Your task to perform on an android device: toggle pop-ups in chrome Image 0: 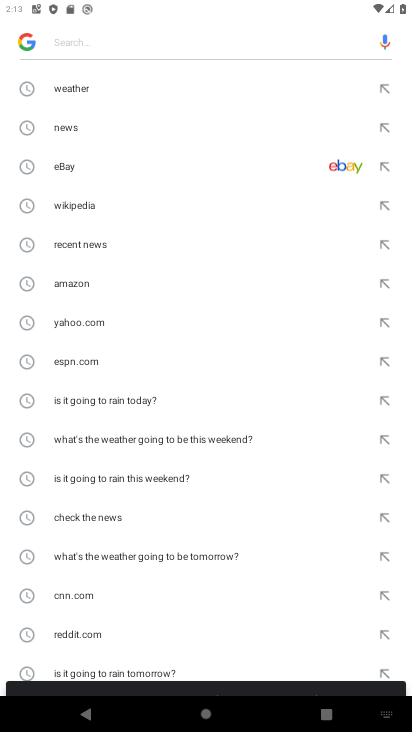
Step 0: press home button
Your task to perform on an android device: toggle pop-ups in chrome Image 1: 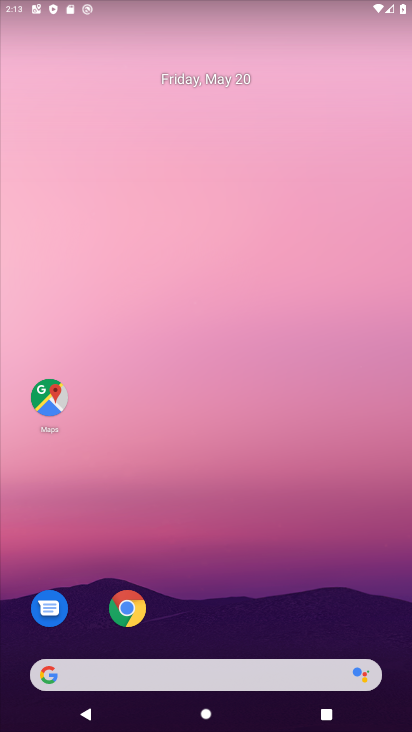
Step 1: click (115, 606)
Your task to perform on an android device: toggle pop-ups in chrome Image 2: 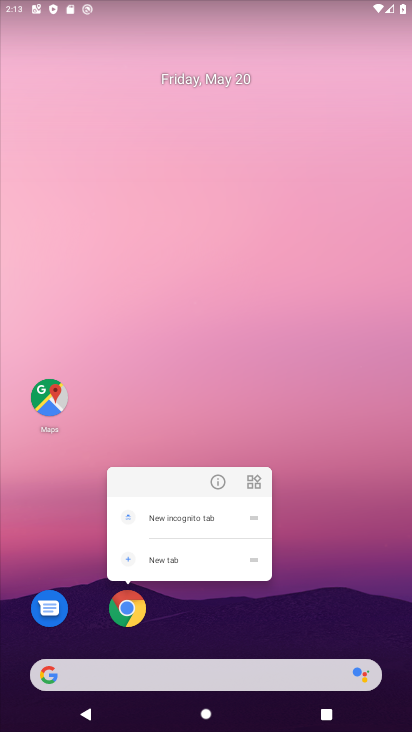
Step 2: click (126, 609)
Your task to perform on an android device: toggle pop-ups in chrome Image 3: 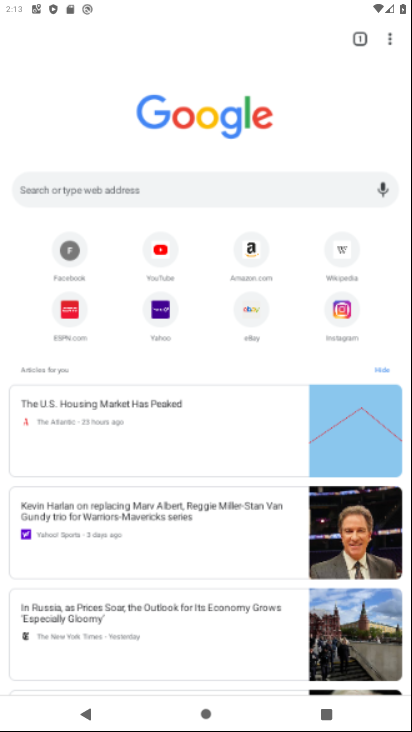
Step 3: click (119, 611)
Your task to perform on an android device: toggle pop-ups in chrome Image 4: 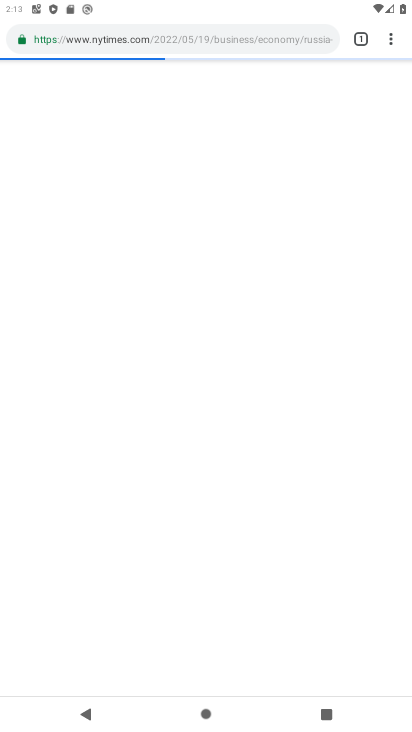
Step 4: press back button
Your task to perform on an android device: toggle pop-ups in chrome Image 5: 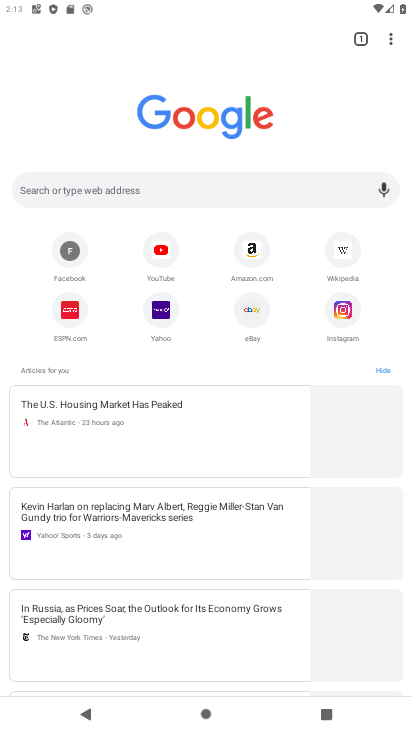
Step 5: drag from (390, 40) to (250, 321)
Your task to perform on an android device: toggle pop-ups in chrome Image 6: 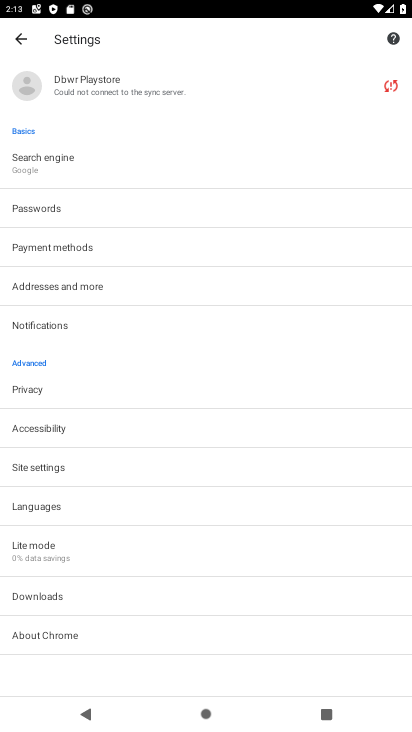
Step 6: click (44, 457)
Your task to perform on an android device: toggle pop-ups in chrome Image 7: 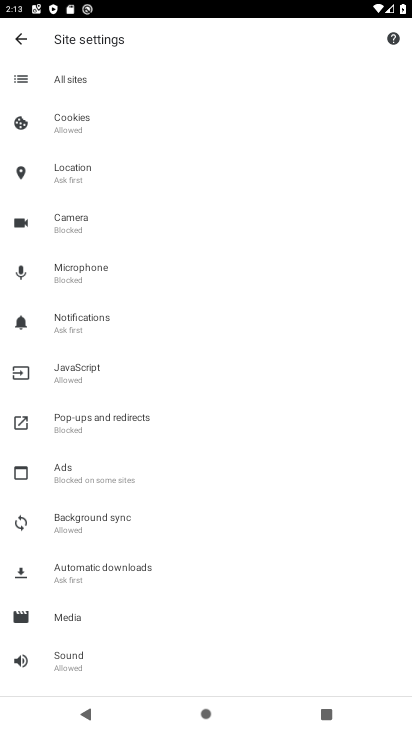
Step 7: click (94, 426)
Your task to perform on an android device: toggle pop-ups in chrome Image 8: 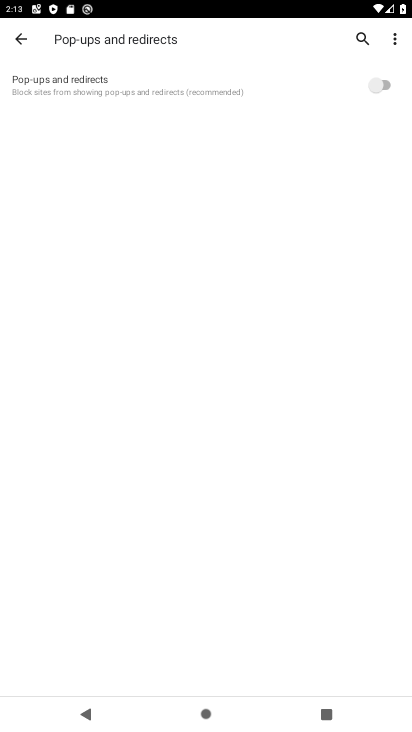
Step 8: click (379, 83)
Your task to perform on an android device: toggle pop-ups in chrome Image 9: 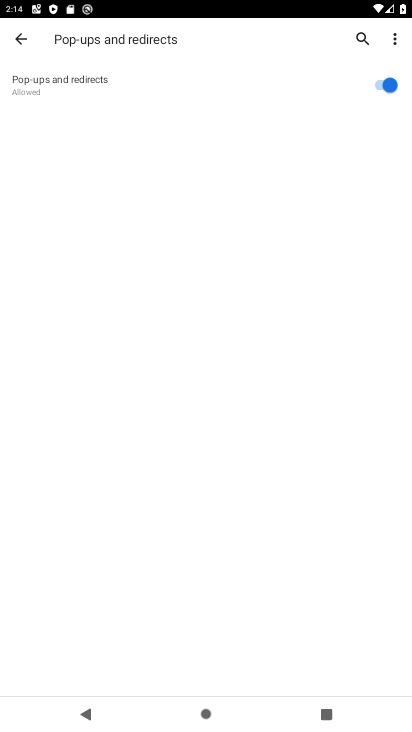
Step 9: task complete